Your task to perform on an android device: open wifi settings Image 0: 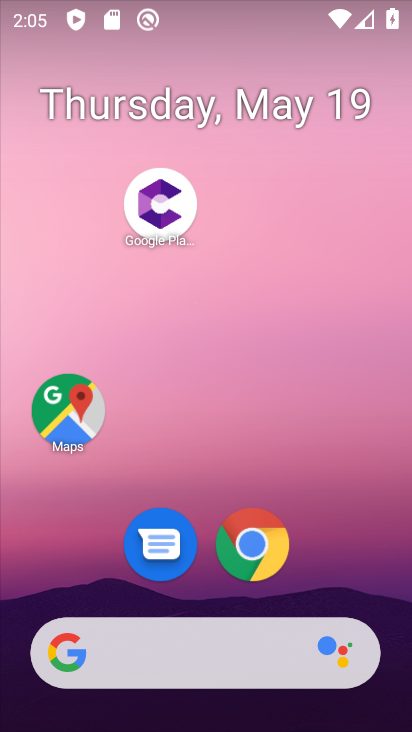
Step 0: drag from (327, 321) to (361, 217)
Your task to perform on an android device: open wifi settings Image 1: 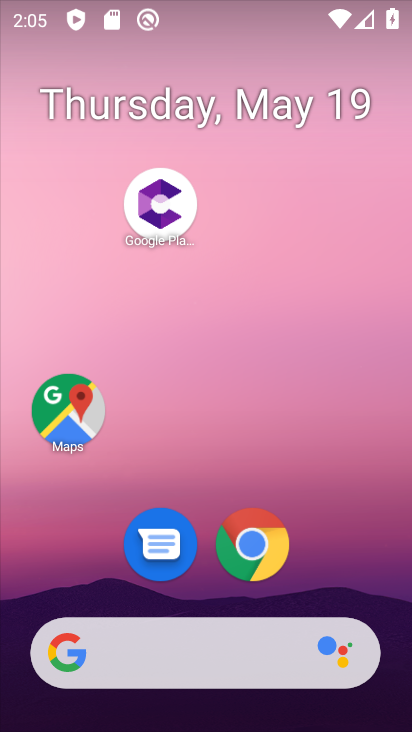
Step 1: drag from (207, 698) to (237, 147)
Your task to perform on an android device: open wifi settings Image 2: 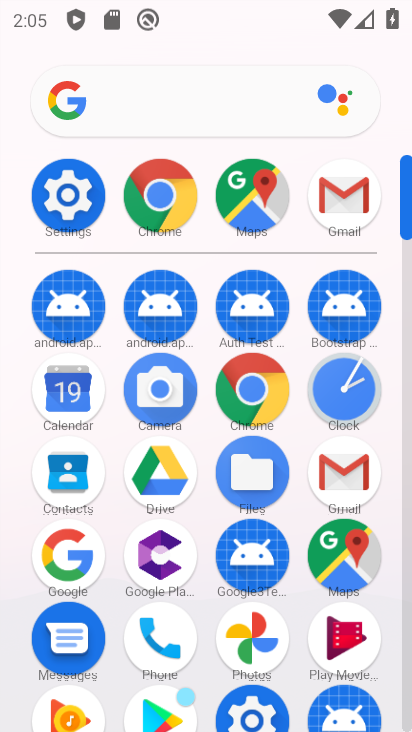
Step 2: click (79, 195)
Your task to perform on an android device: open wifi settings Image 3: 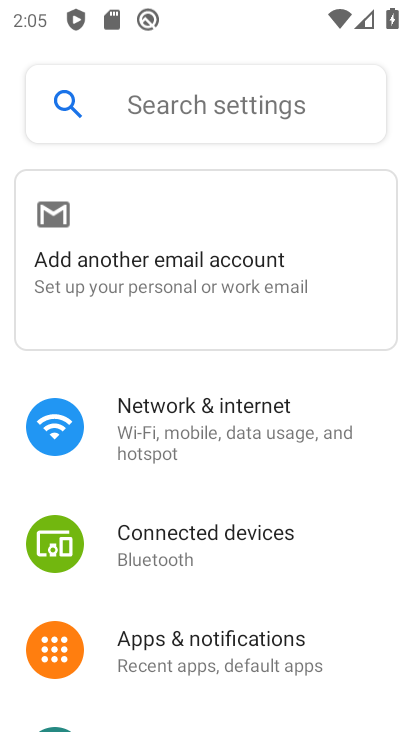
Step 3: click (162, 436)
Your task to perform on an android device: open wifi settings Image 4: 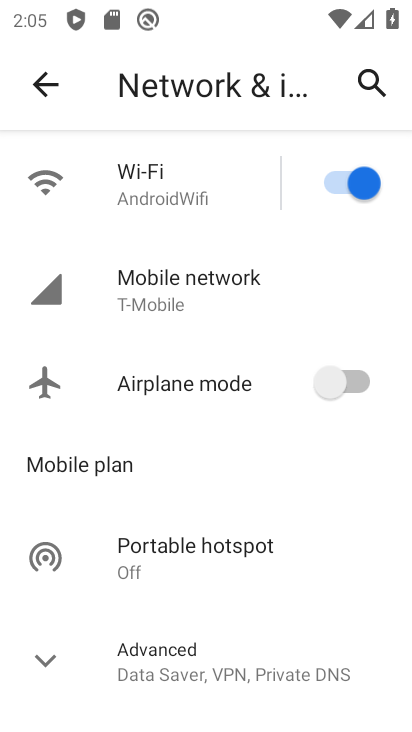
Step 4: click (131, 164)
Your task to perform on an android device: open wifi settings Image 5: 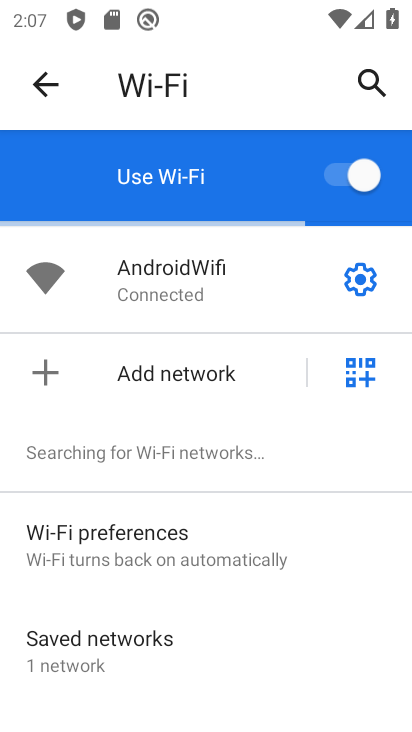
Step 5: task complete